Your task to perform on an android device: find which apps use the phone's location Image 0: 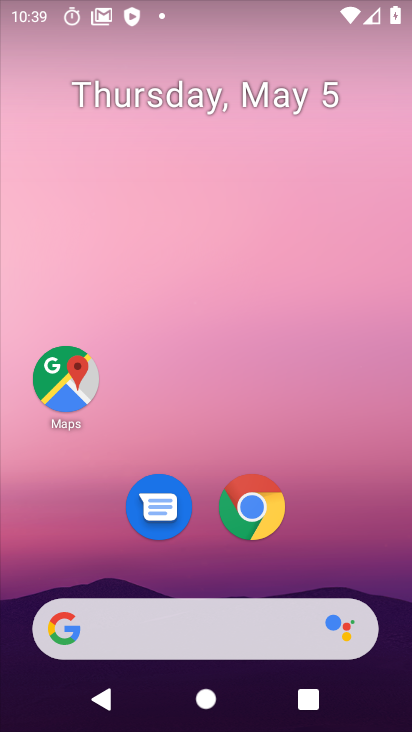
Step 0: drag from (355, 585) to (368, 0)
Your task to perform on an android device: find which apps use the phone's location Image 1: 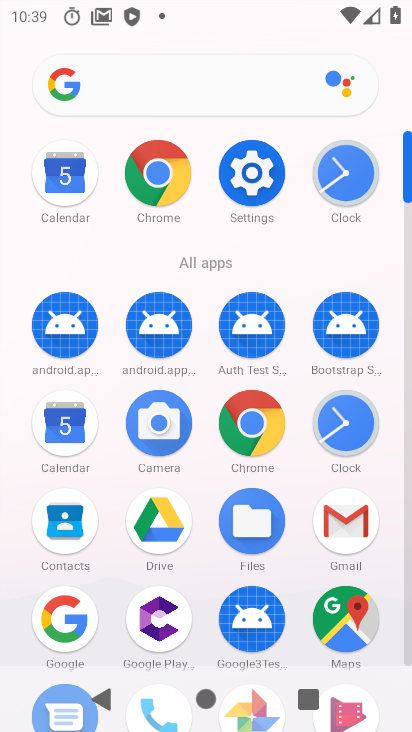
Step 1: click (243, 174)
Your task to perform on an android device: find which apps use the phone's location Image 2: 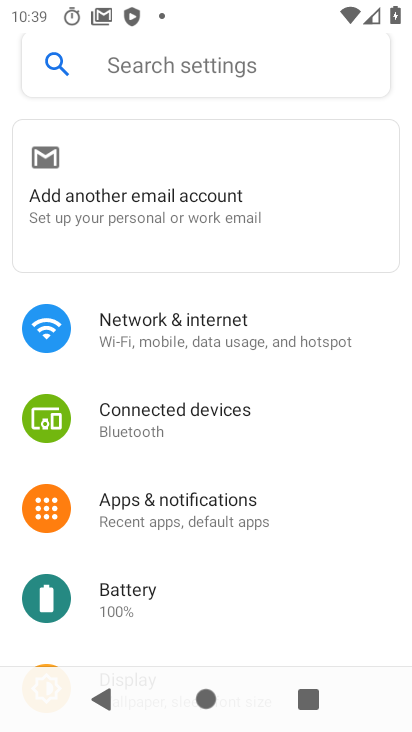
Step 2: drag from (327, 536) to (327, 120)
Your task to perform on an android device: find which apps use the phone's location Image 3: 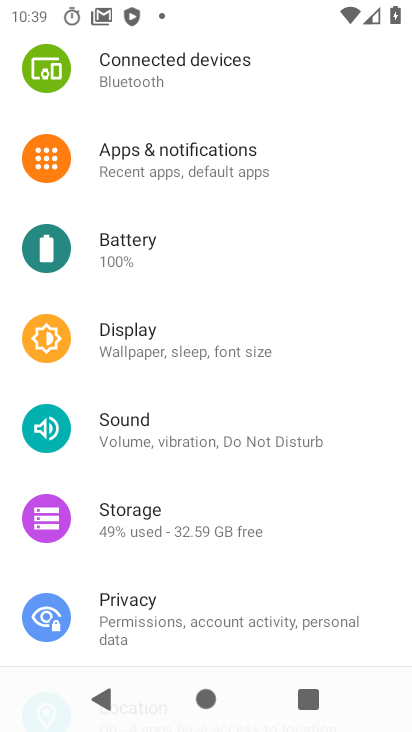
Step 3: drag from (312, 536) to (307, 112)
Your task to perform on an android device: find which apps use the phone's location Image 4: 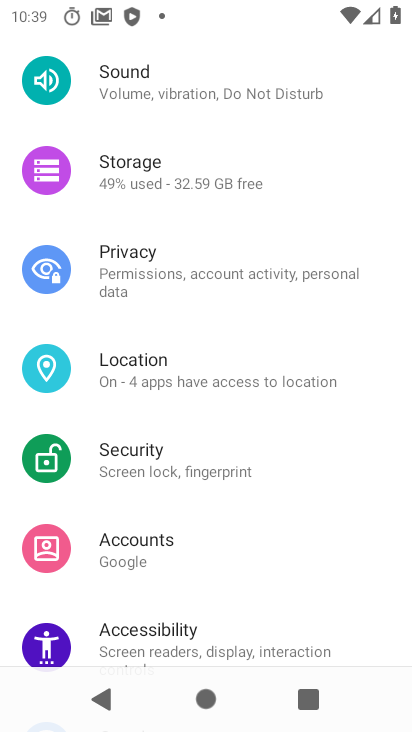
Step 4: click (127, 374)
Your task to perform on an android device: find which apps use the phone's location Image 5: 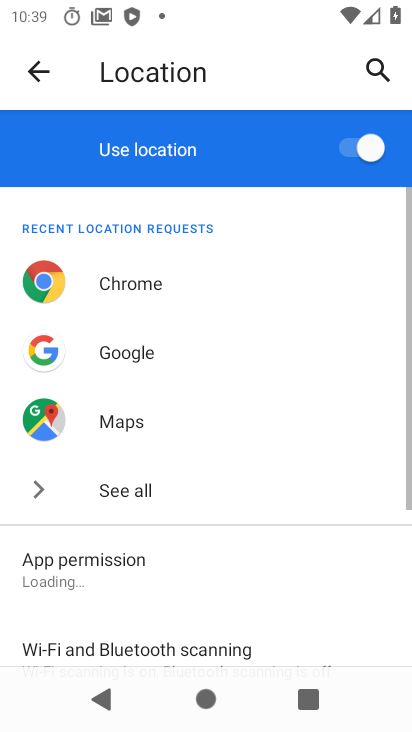
Step 5: drag from (253, 598) to (257, 367)
Your task to perform on an android device: find which apps use the phone's location Image 6: 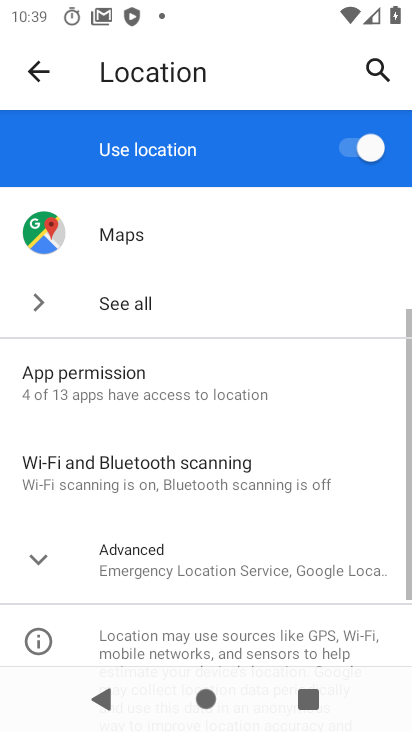
Step 6: click (75, 389)
Your task to perform on an android device: find which apps use the phone's location Image 7: 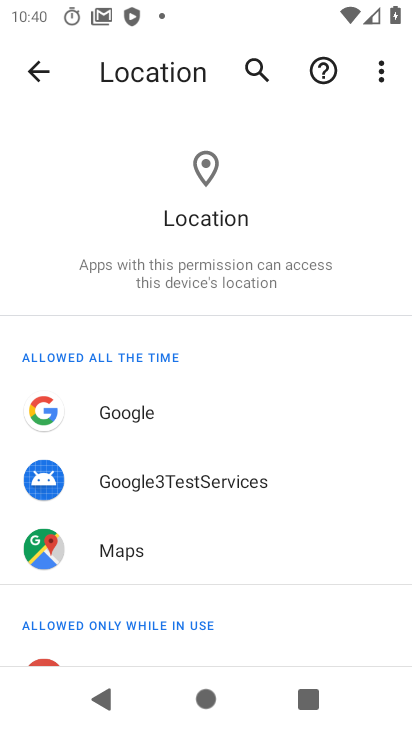
Step 7: task complete